Your task to perform on an android device: find snoozed emails in the gmail app Image 0: 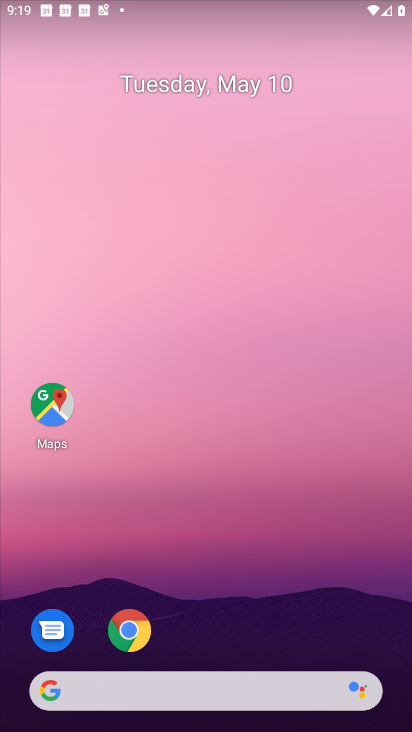
Step 0: drag from (171, 725) to (252, 107)
Your task to perform on an android device: find snoozed emails in the gmail app Image 1: 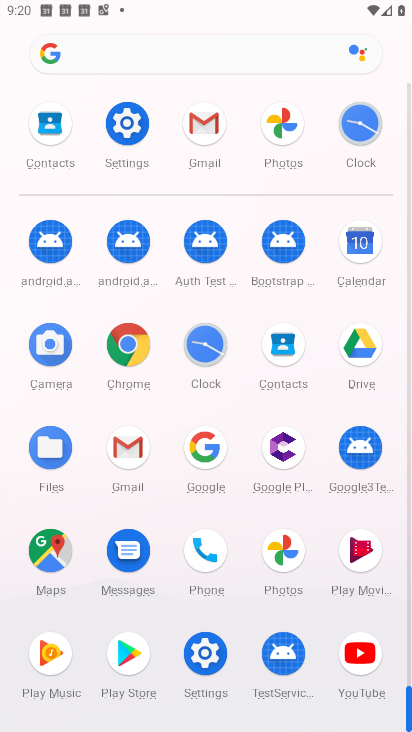
Step 1: click (208, 112)
Your task to perform on an android device: find snoozed emails in the gmail app Image 2: 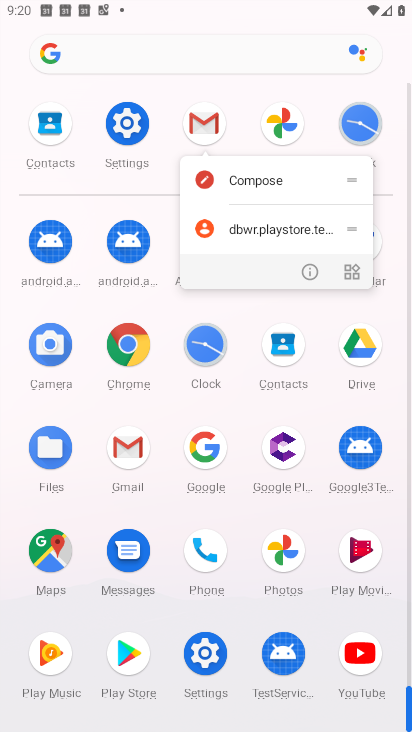
Step 2: click (208, 117)
Your task to perform on an android device: find snoozed emails in the gmail app Image 3: 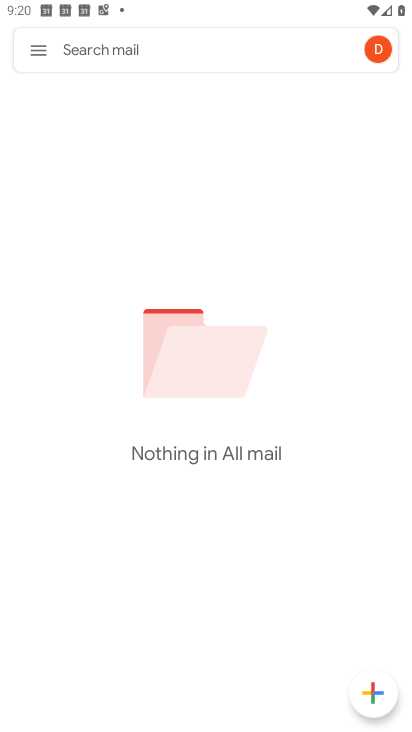
Step 3: click (37, 49)
Your task to perform on an android device: find snoozed emails in the gmail app Image 4: 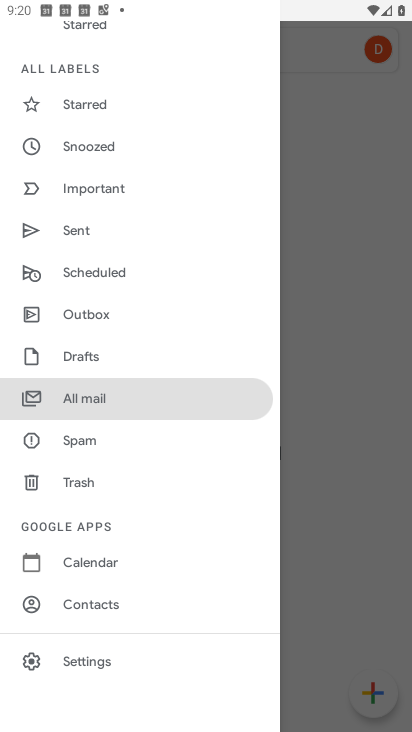
Step 4: click (110, 147)
Your task to perform on an android device: find snoozed emails in the gmail app Image 5: 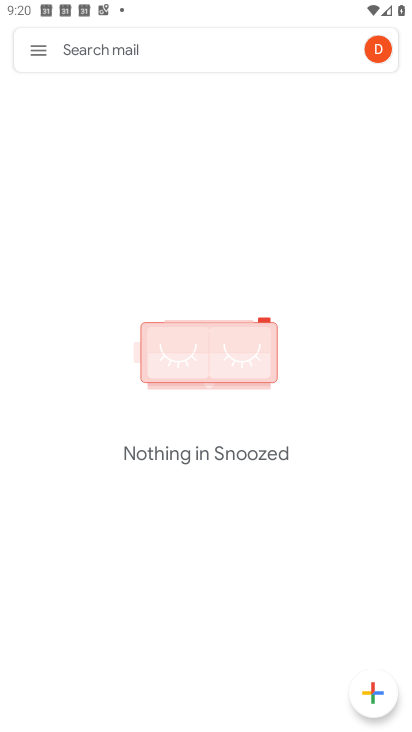
Step 5: task complete